Your task to perform on an android device: check out phone information Image 0: 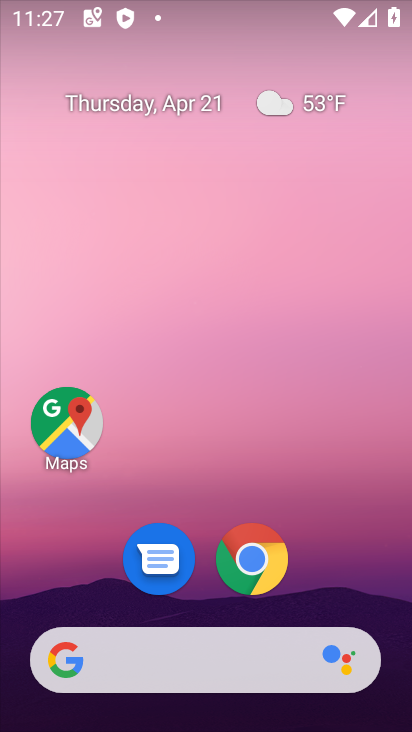
Step 0: drag from (353, 534) to (364, 6)
Your task to perform on an android device: check out phone information Image 1: 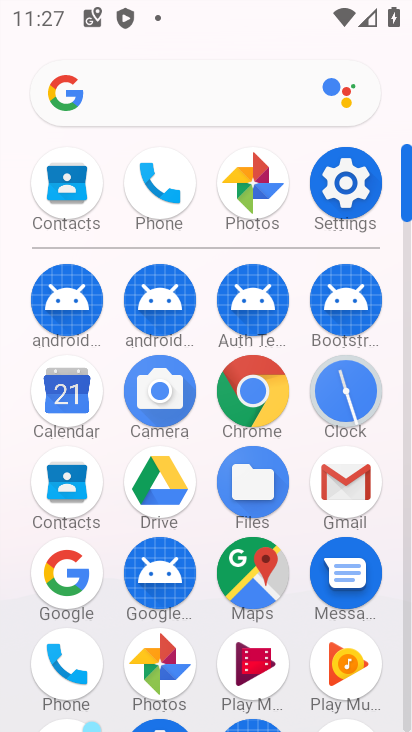
Step 1: click (345, 178)
Your task to perform on an android device: check out phone information Image 2: 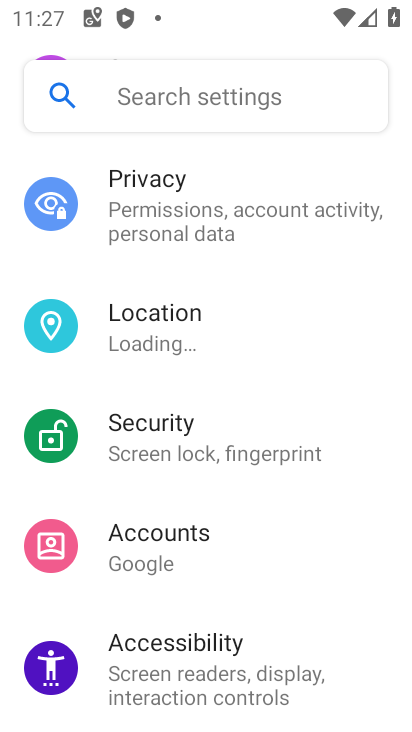
Step 2: drag from (319, 573) to (317, 32)
Your task to perform on an android device: check out phone information Image 3: 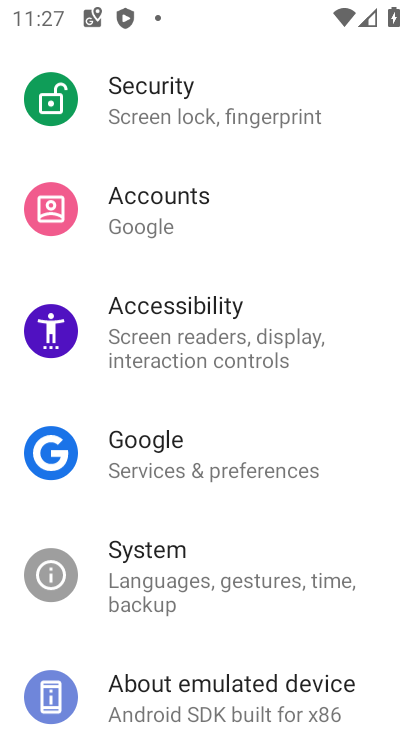
Step 3: drag from (282, 593) to (280, 214)
Your task to perform on an android device: check out phone information Image 4: 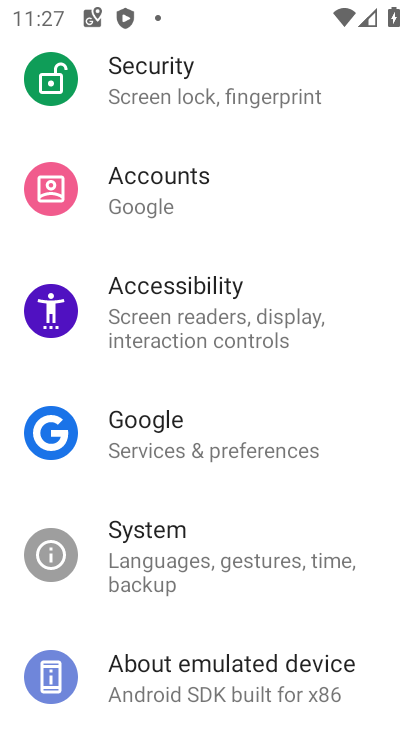
Step 4: drag from (220, 651) to (219, 472)
Your task to perform on an android device: check out phone information Image 5: 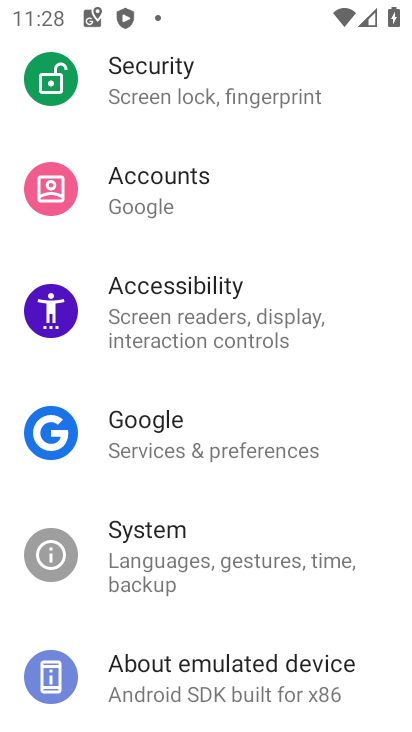
Step 5: click (209, 675)
Your task to perform on an android device: check out phone information Image 6: 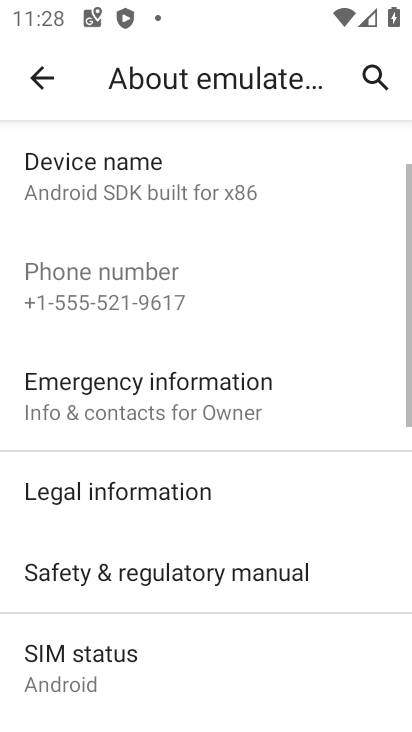
Step 6: task complete